Your task to perform on an android device: Open the calendar app, open the side menu, and click the "Day" option Image 0: 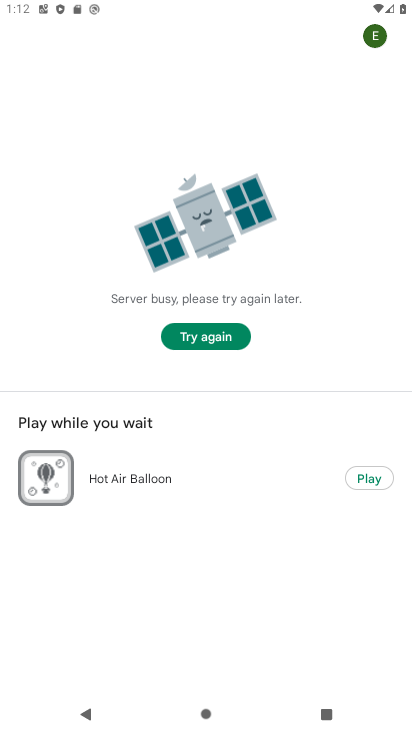
Step 0: press home button
Your task to perform on an android device: Open the calendar app, open the side menu, and click the "Day" option Image 1: 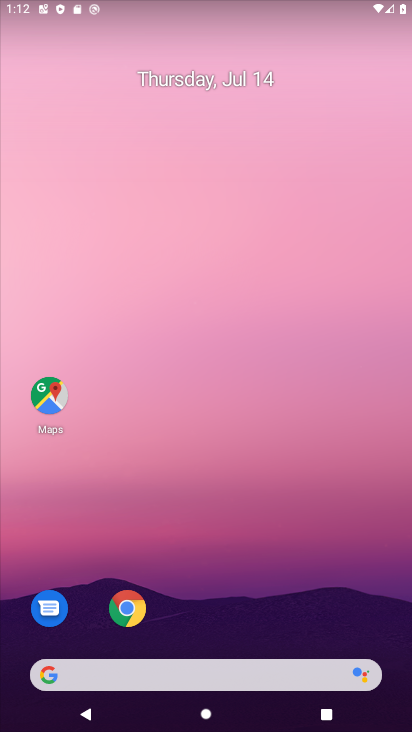
Step 1: drag from (387, 635) to (358, 221)
Your task to perform on an android device: Open the calendar app, open the side menu, and click the "Day" option Image 2: 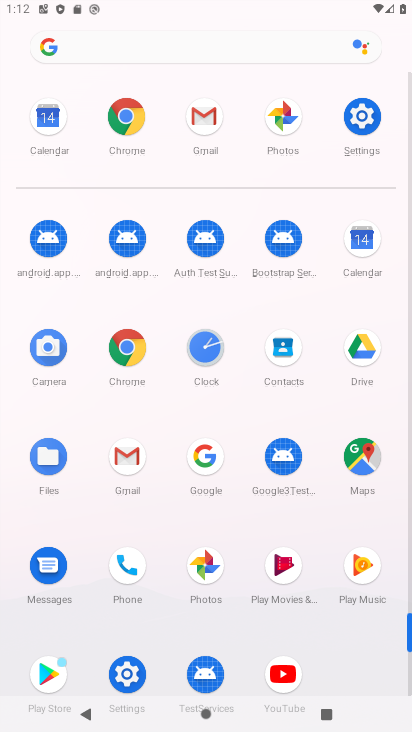
Step 2: click (360, 235)
Your task to perform on an android device: Open the calendar app, open the side menu, and click the "Day" option Image 3: 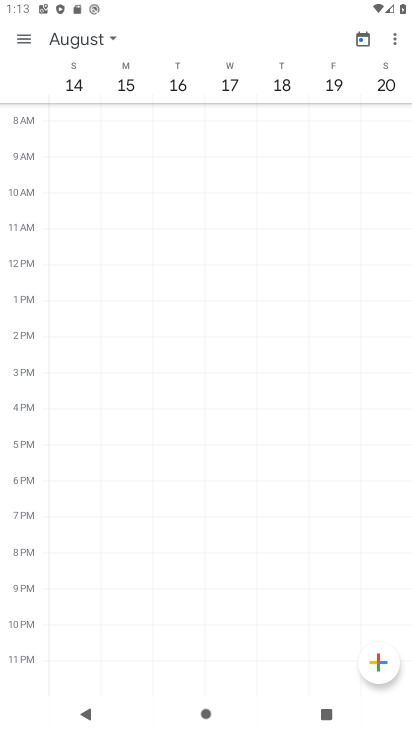
Step 3: click (23, 39)
Your task to perform on an android device: Open the calendar app, open the side menu, and click the "Day" option Image 4: 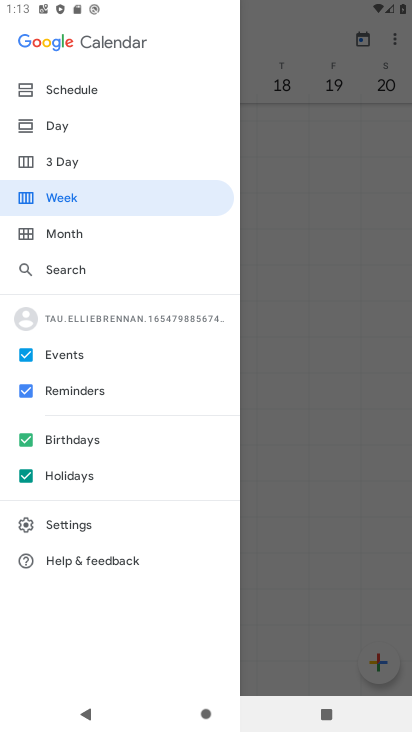
Step 4: click (56, 124)
Your task to perform on an android device: Open the calendar app, open the side menu, and click the "Day" option Image 5: 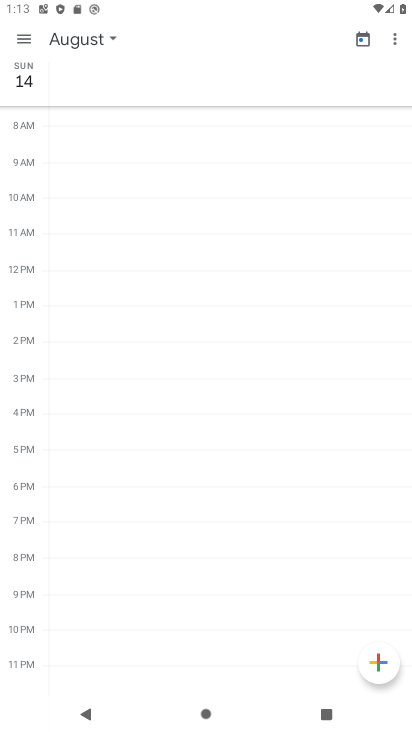
Step 5: task complete